Your task to perform on an android device: see creations saved in the google photos Image 0: 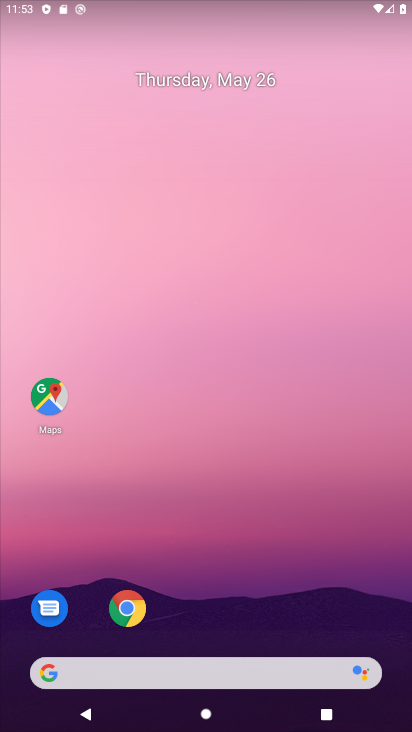
Step 0: drag from (154, 683) to (299, 198)
Your task to perform on an android device: see creations saved in the google photos Image 1: 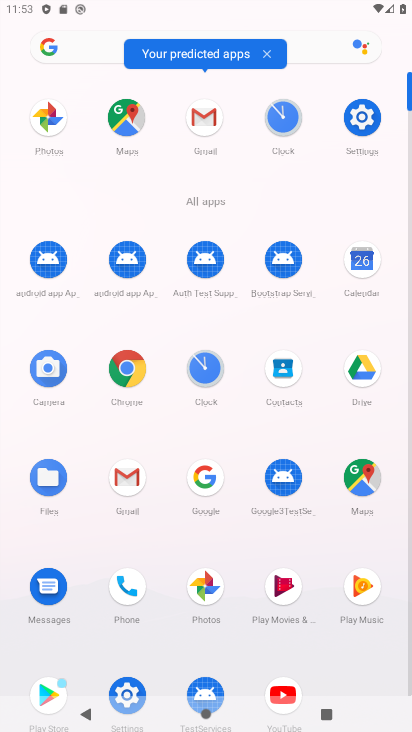
Step 1: click (205, 585)
Your task to perform on an android device: see creations saved in the google photos Image 2: 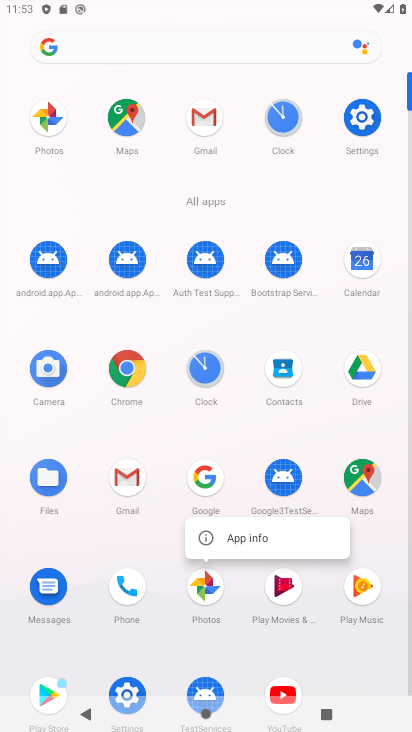
Step 2: click (205, 591)
Your task to perform on an android device: see creations saved in the google photos Image 3: 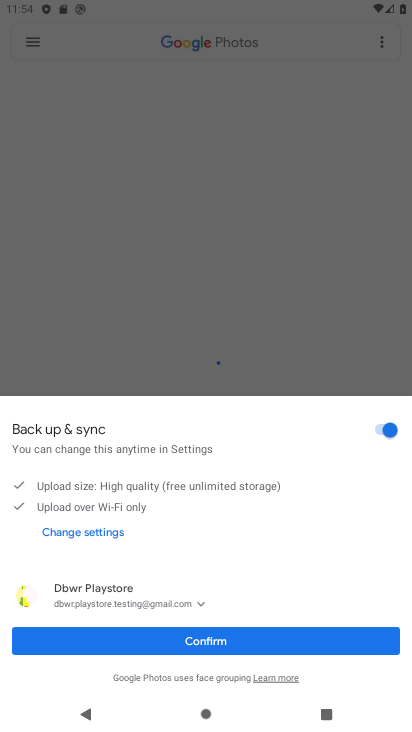
Step 3: click (204, 642)
Your task to perform on an android device: see creations saved in the google photos Image 4: 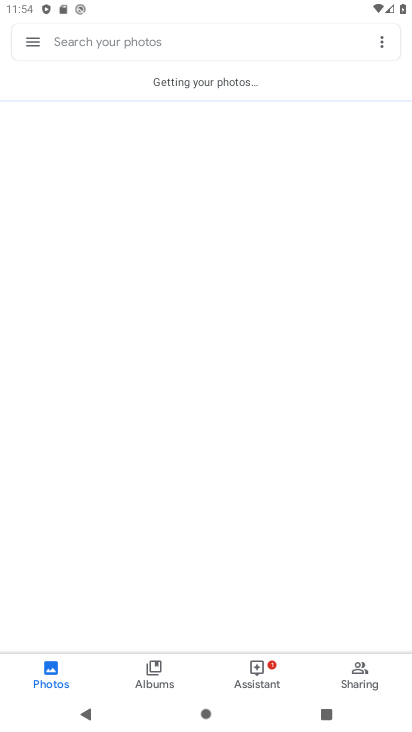
Step 4: click (153, 673)
Your task to perform on an android device: see creations saved in the google photos Image 5: 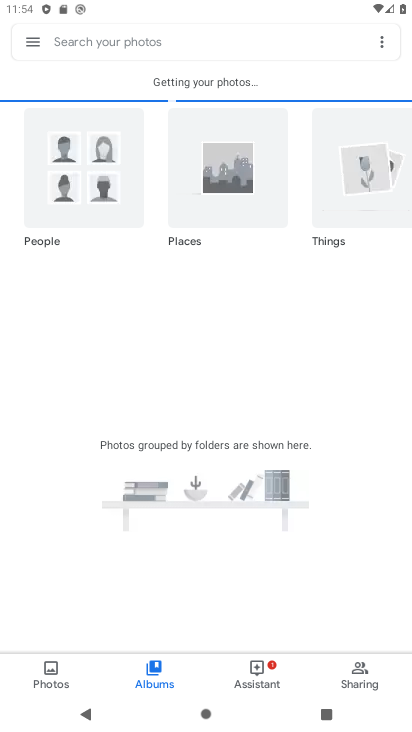
Step 5: click (169, 38)
Your task to perform on an android device: see creations saved in the google photos Image 6: 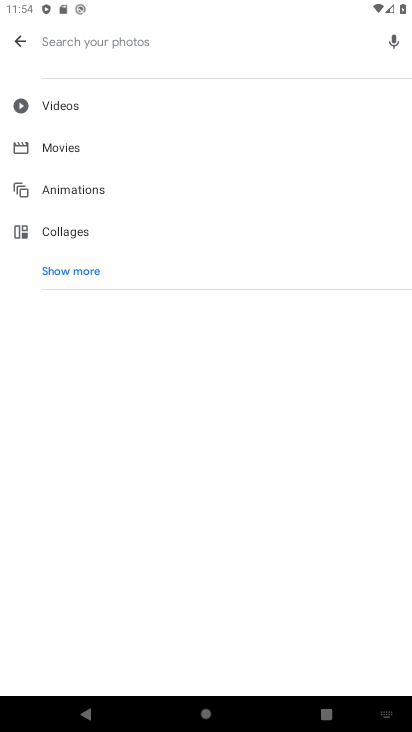
Step 6: click (60, 272)
Your task to perform on an android device: see creations saved in the google photos Image 7: 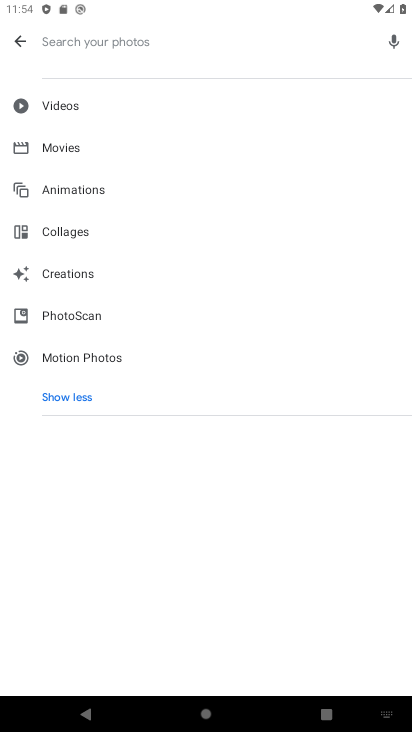
Step 7: click (71, 271)
Your task to perform on an android device: see creations saved in the google photos Image 8: 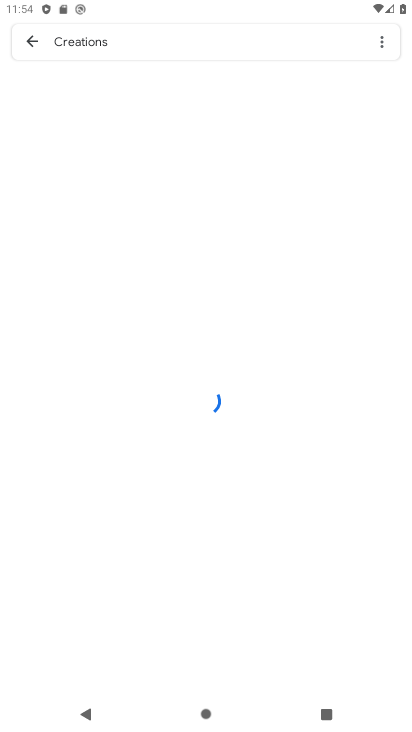
Step 8: task complete